Your task to perform on an android device: change keyboard looks Image 0: 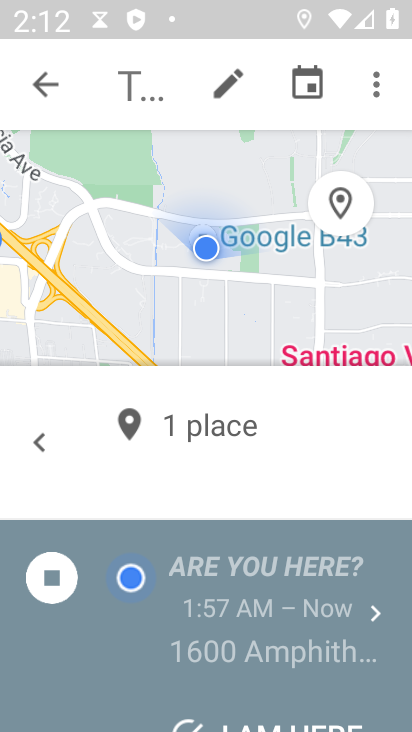
Step 0: press back button
Your task to perform on an android device: change keyboard looks Image 1: 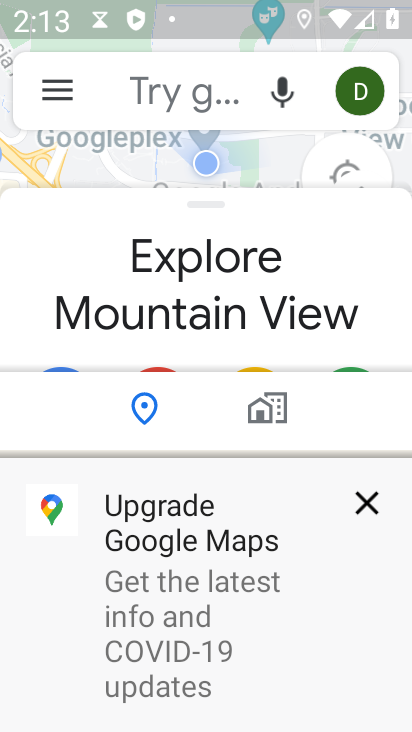
Step 1: press back button
Your task to perform on an android device: change keyboard looks Image 2: 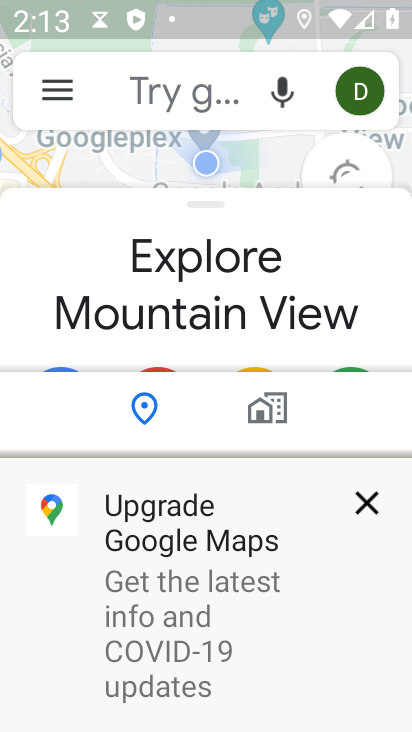
Step 2: press home button
Your task to perform on an android device: change keyboard looks Image 3: 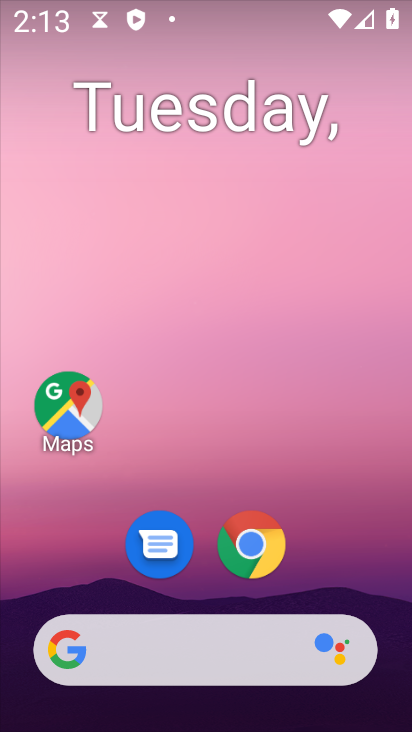
Step 3: drag from (322, 529) to (301, 26)
Your task to perform on an android device: change keyboard looks Image 4: 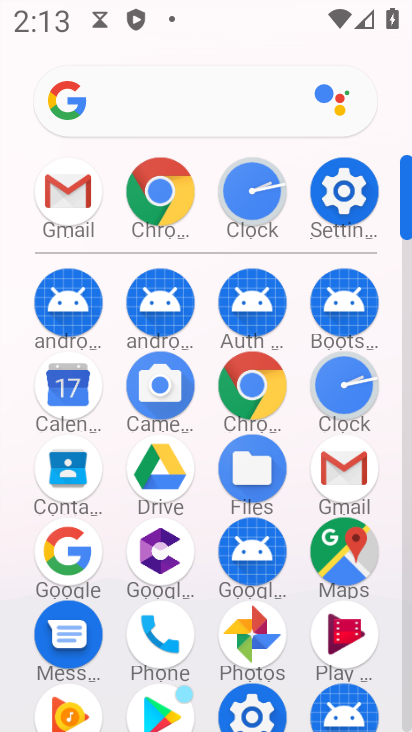
Step 4: click (347, 187)
Your task to perform on an android device: change keyboard looks Image 5: 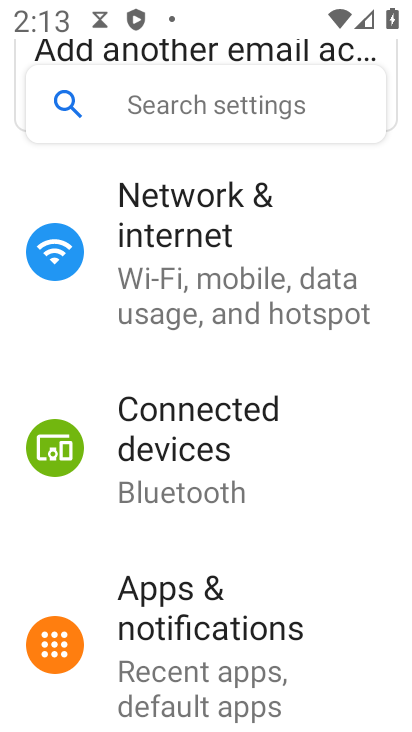
Step 5: drag from (290, 603) to (291, 172)
Your task to perform on an android device: change keyboard looks Image 6: 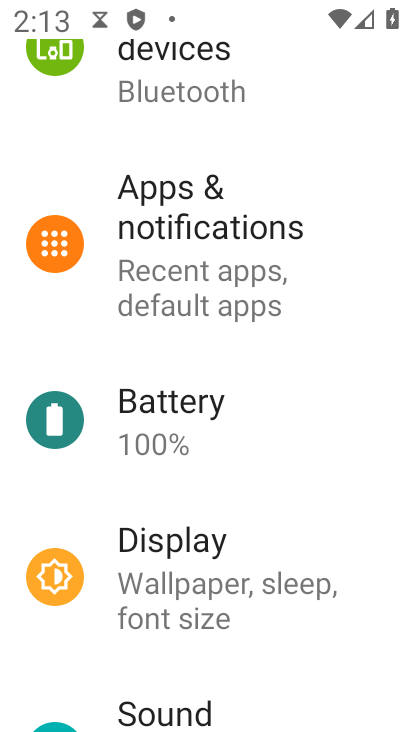
Step 6: drag from (238, 610) to (255, 166)
Your task to perform on an android device: change keyboard looks Image 7: 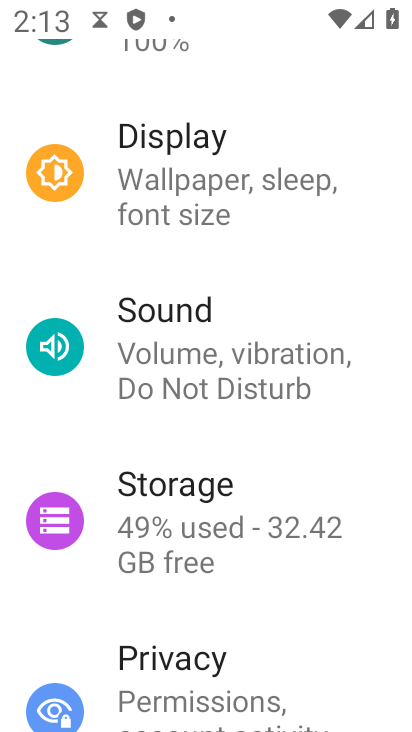
Step 7: drag from (215, 661) to (276, 151)
Your task to perform on an android device: change keyboard looks Image 8: 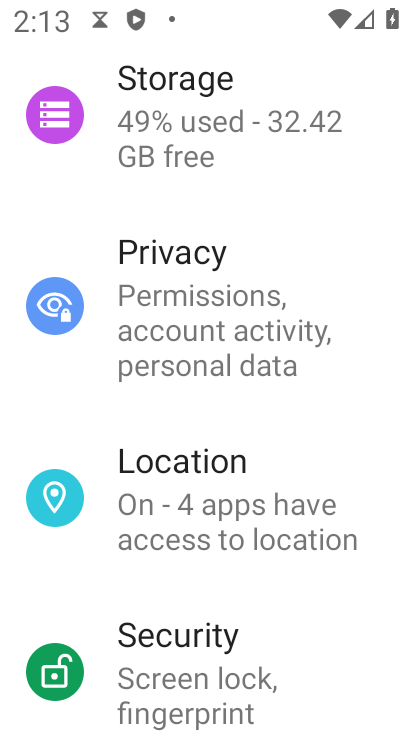
Step 8: drag from (245, 616) to (291, 172)
Your task to perform on an android device: change keyboard looks Image 9: 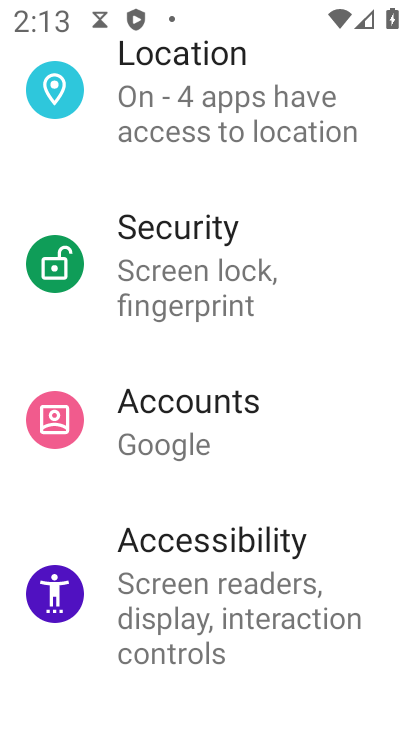
Step 9: drag from (256, 623) to (263, 147)
Your task to perform on an android device: change keyboard looks Image 10: 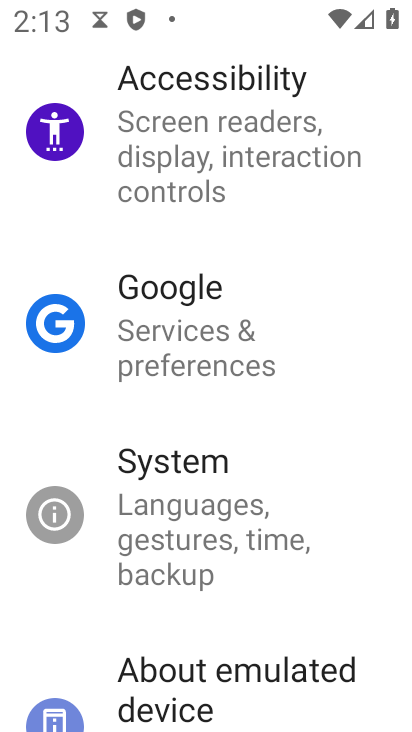
Step 10: drag from (262, 669) to (262, 292)
Your task to perform on an android device: change keyboard looks Image 11: 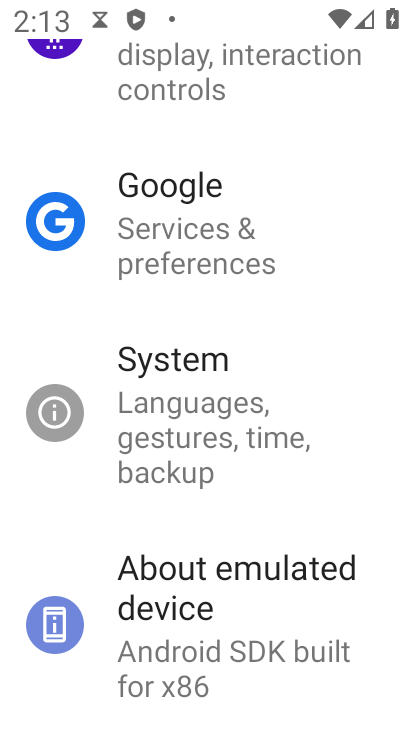
Step 11: click (193, 394)
Your task to perform on an android device: change keyboard looks Image 12: 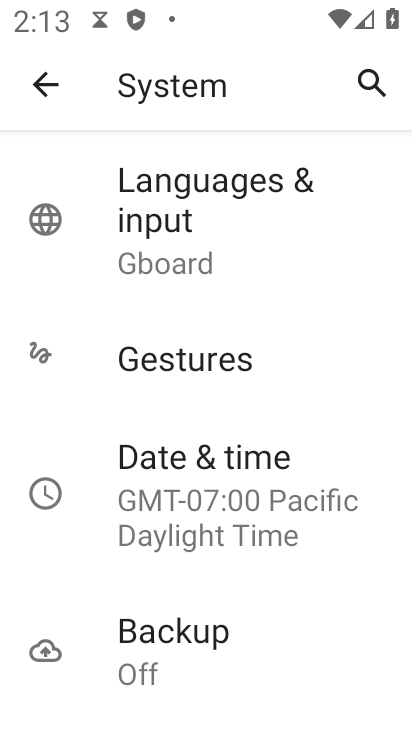
Step 12: click (205, 191)
Your task to perform on an android device: change keyboard looks Image 13: 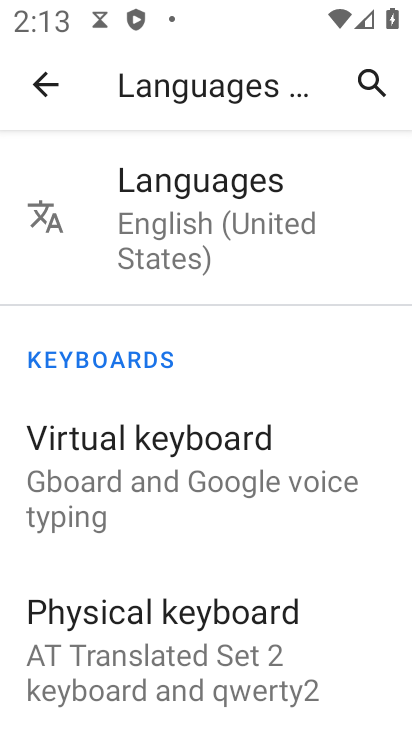
Step 13: click (207, 461)
Your task to perform on an android device: change keyboard looks Image 14: 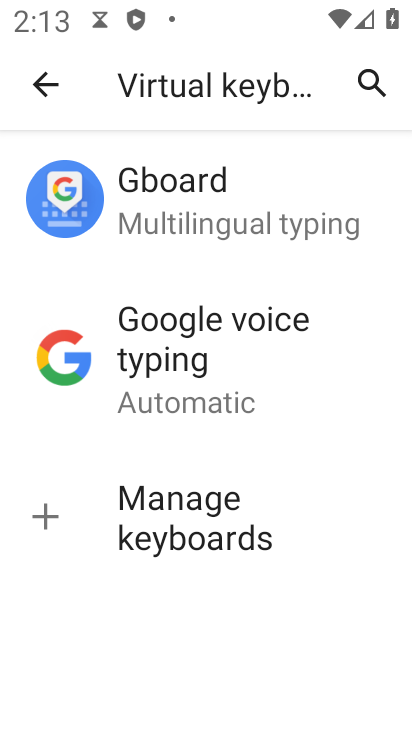
Step 14: click (225, 215)
Your task to perform on an android device: change keyboard looks Image 15: 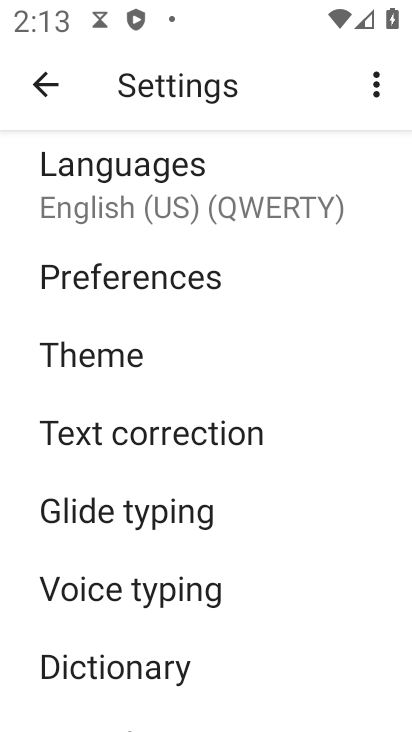
Step 15: click (133, 353)
Your task to perform on an android device: change keyboard looks Image 16: 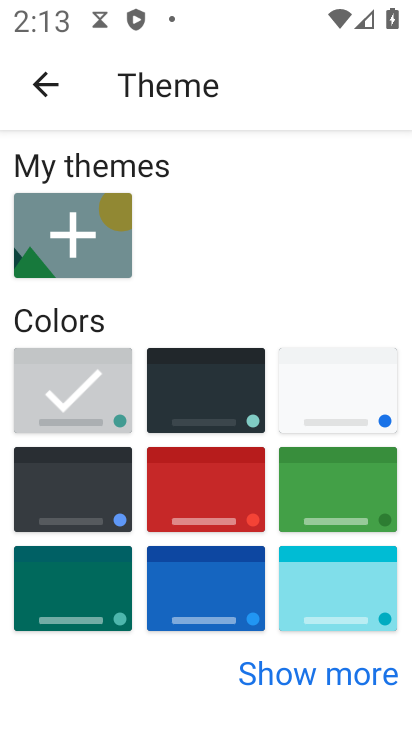
Step 16: click (186, 381)
Your task to perform on an android device: change keyboard looks Image 17: 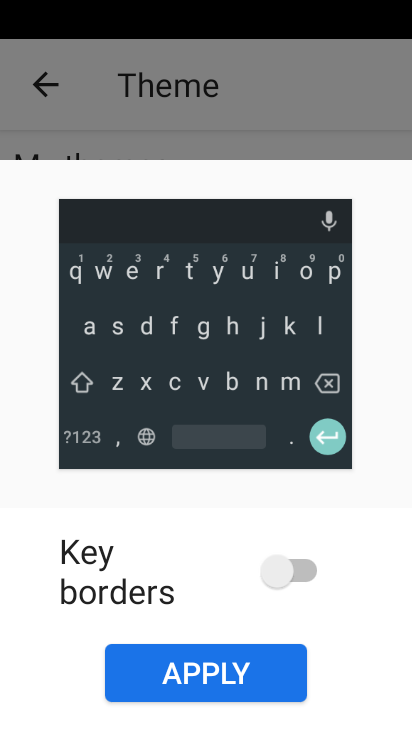
Step 17: click (189, 665)
Your task to perform on an android device: change keyboard looks Image 18: 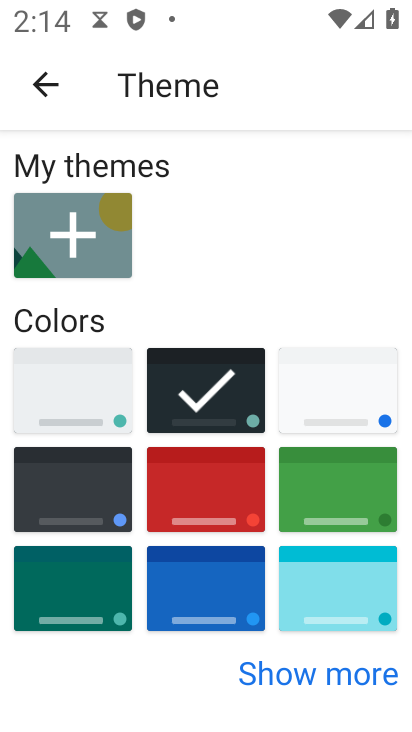
Step 18: task complete